Your task to perform on an android device: turn on the 12-hour format for clock Image 0: 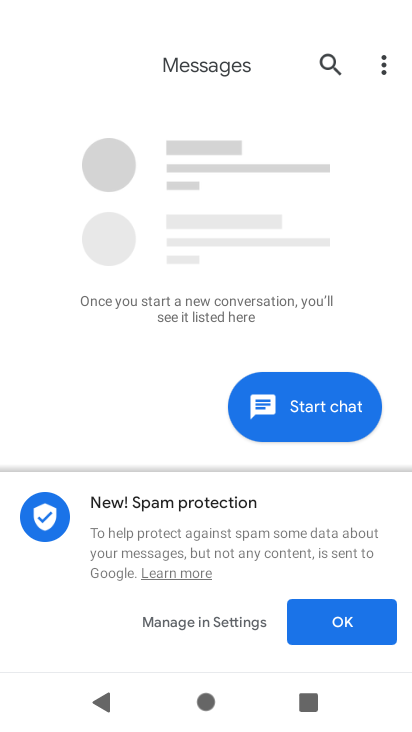
Step 0: press home button
Your task to perform on an android device: turn on the 12-hour format for clock Image 1: 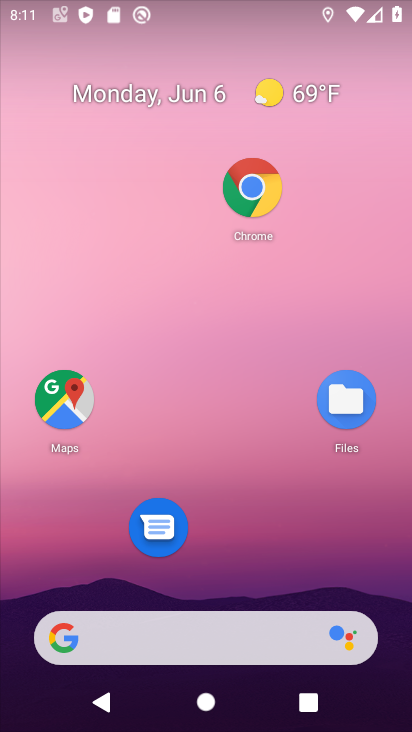
Step 1: drag from (245, 543) to (219, 154)
Your task to perform on an android device: turn on the 12-hour format for clock Image 2: 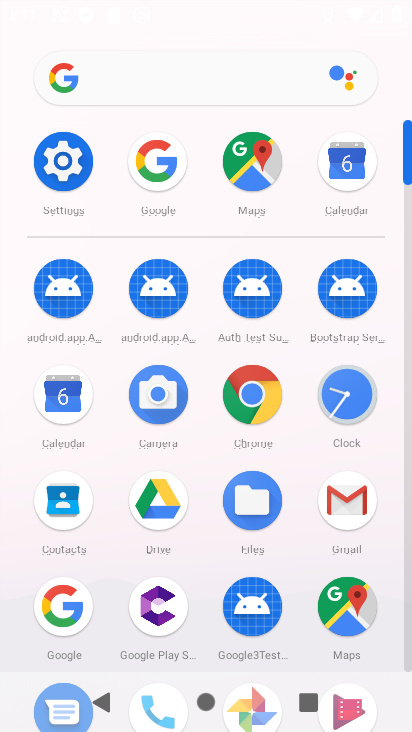
Step 2: click (345, 385)
Your task to perform on an android device: turn on the 12-hour format for clock Image 3: 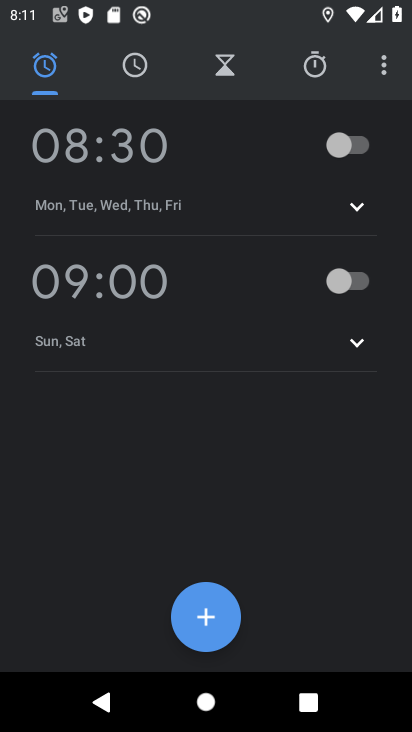
Step 3: click (382, 63)
Your task to perform on an android device: turn on the 12-hour format for clock Image 4: 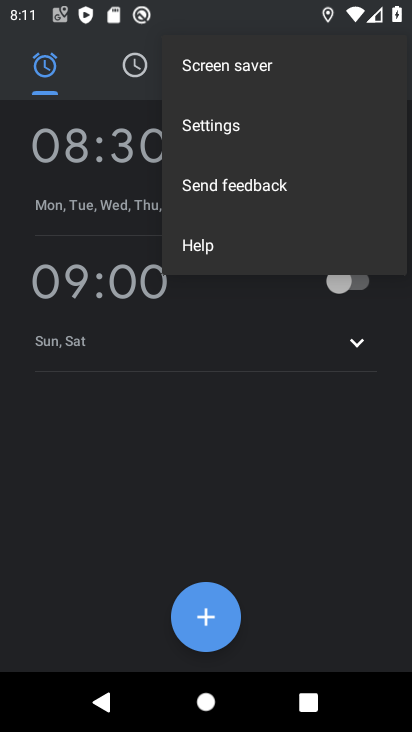
Step 4: click (231, 128)
Your task to perform on an android device: turn on the 12-hour format for clock Image 5: 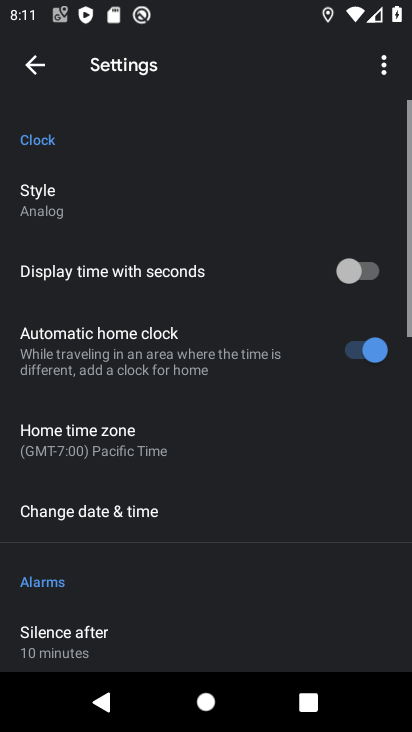
Step 5: click (231, 123)
Your task to perform on an android device: turn on the 12-hour format for clock Image 6: 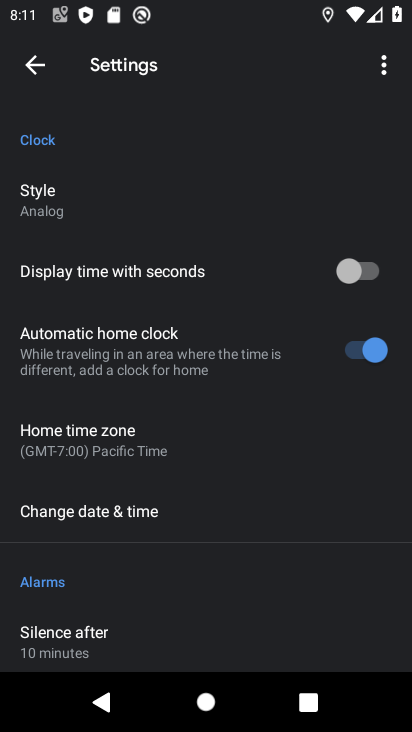
Step 6: click (123, 521)
Your task to perform on an android device: turn on the 12-hour format for clock Image 7: 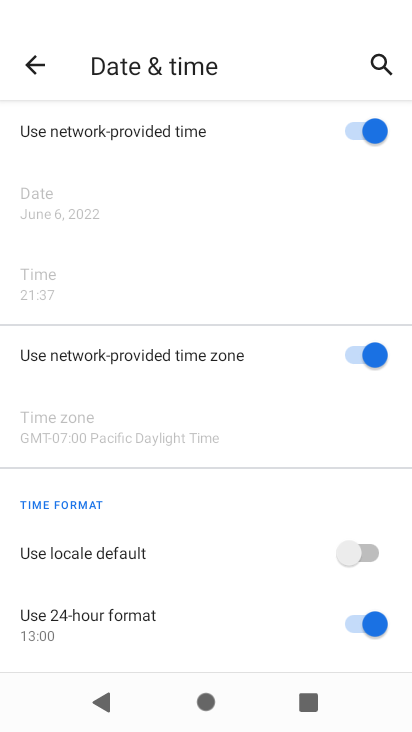
Step 7: task complete